Your task to perform on an android device: What's the weather? Image 0: 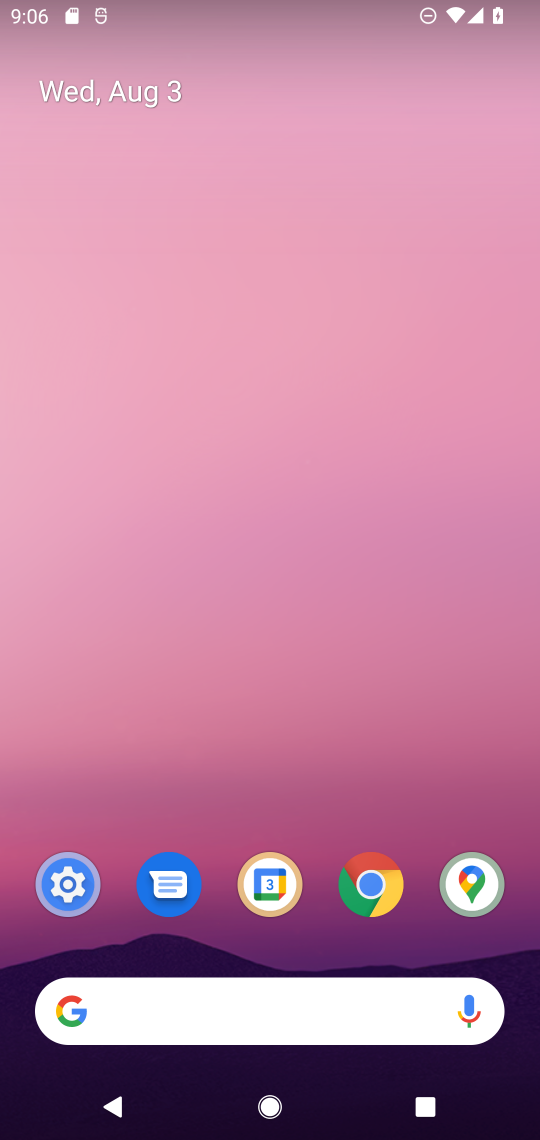
Step 0: click (160, 1007)
Your task to perform on an android device: What's the weather? Image 1: 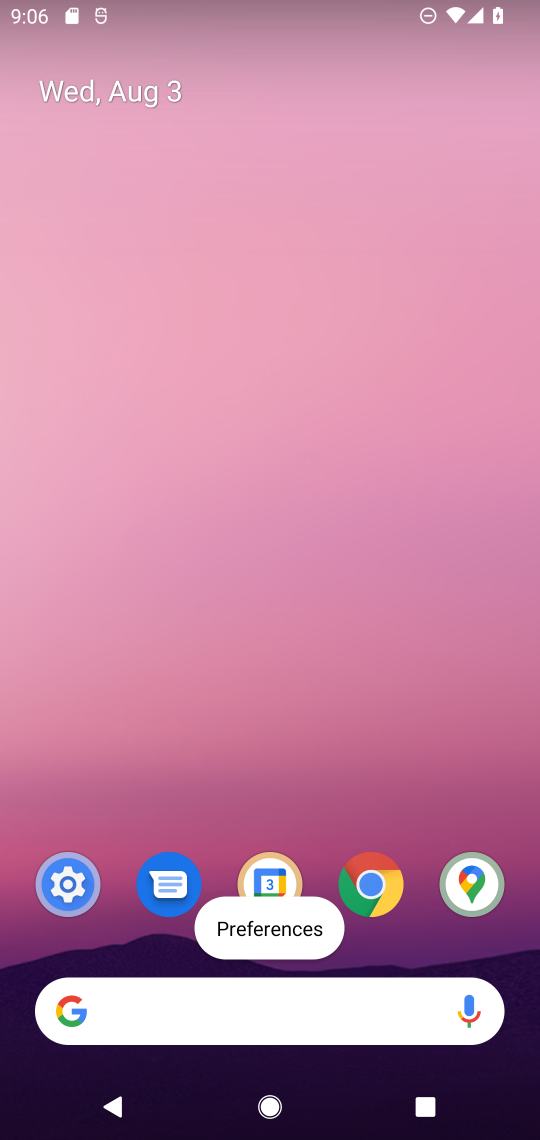
Step 1: click (208, 1018)
Your task to perform on an android device: What's the weather? Image 2: 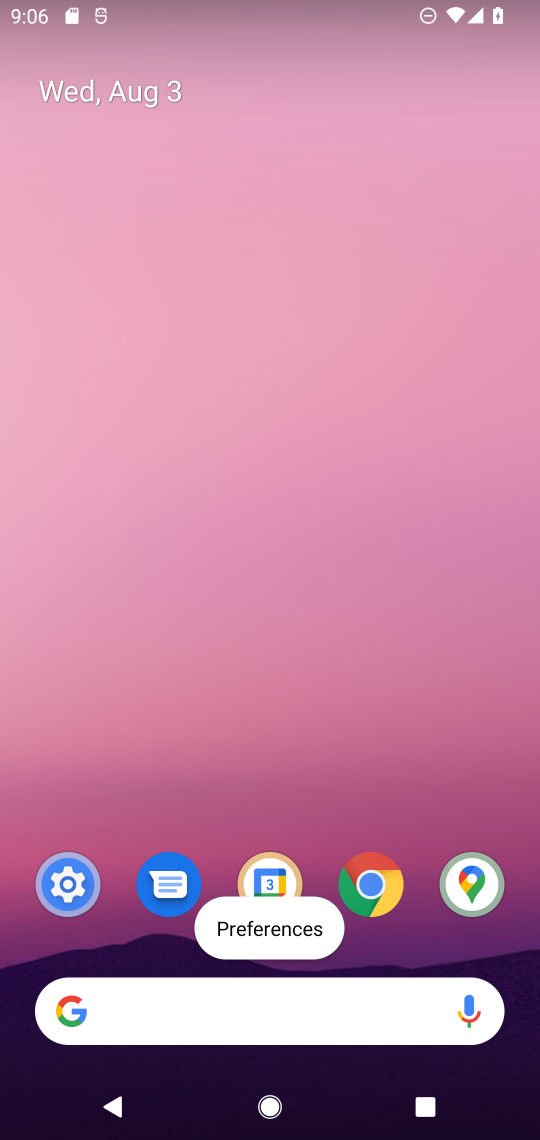
Step 2: click (176, 1017)
Your task to perform on an android device: What's the weather? Image 3: 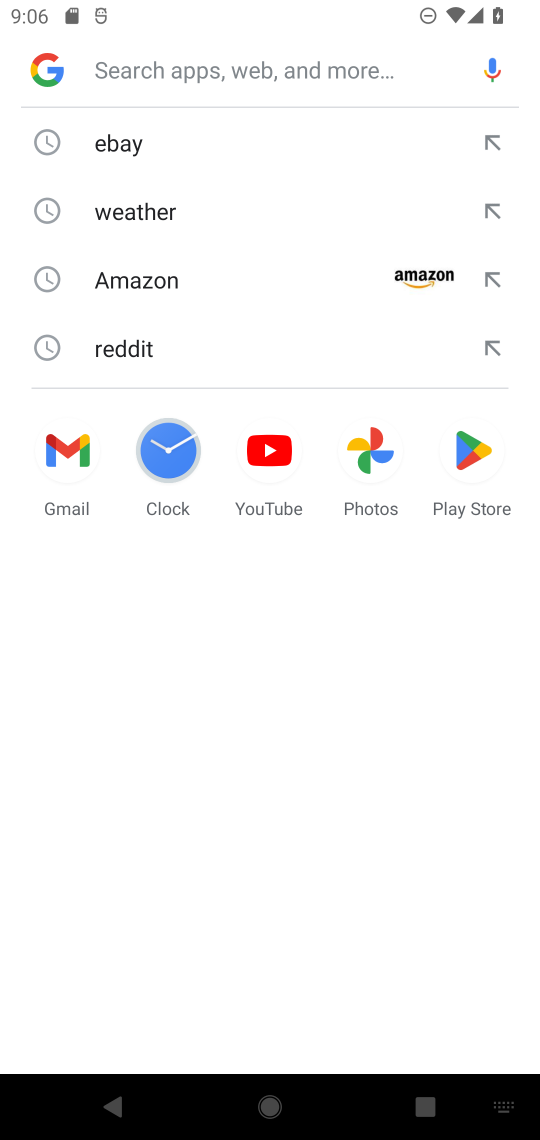
Step 3: type "What's the weather?"
Your task to perform on an android device: What's the weather? Image 4: 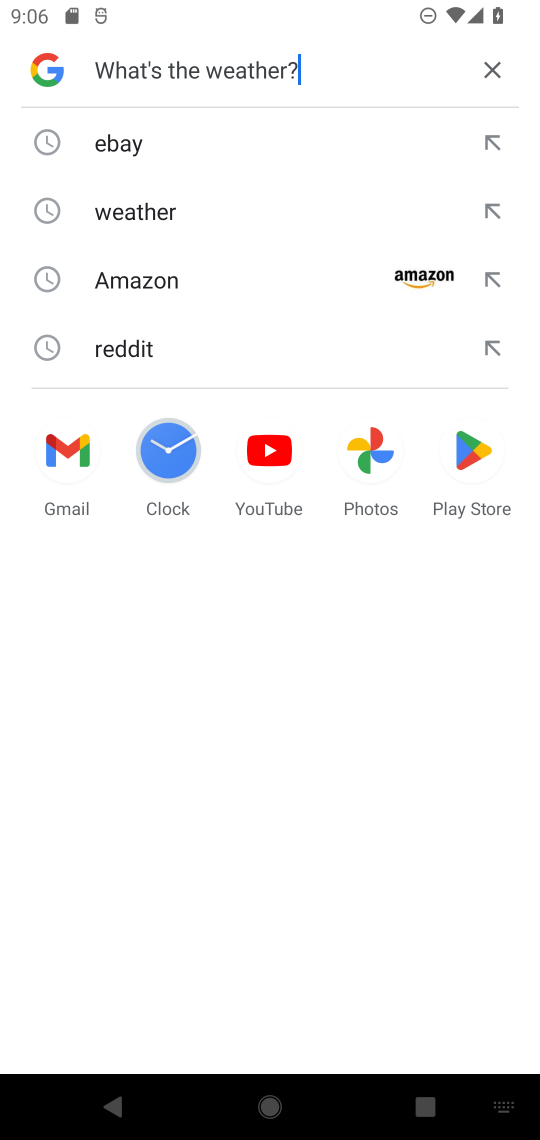
Step 4: type ""
Your task to perform on an android device: What's the weather? Image 5: 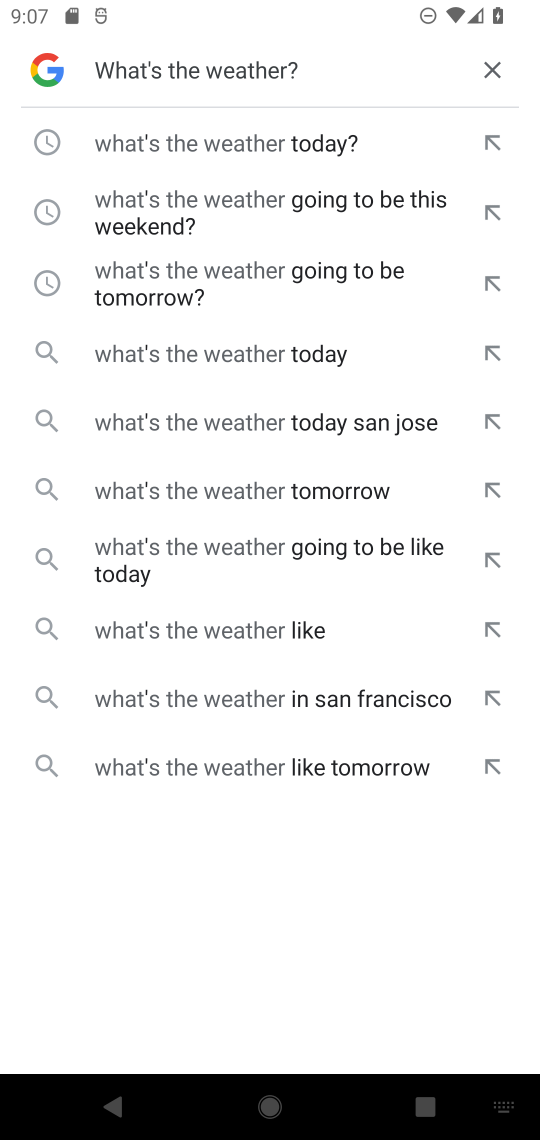
Step 5: type ""
Your task to perform on an android device: What's the weather? Image 6: 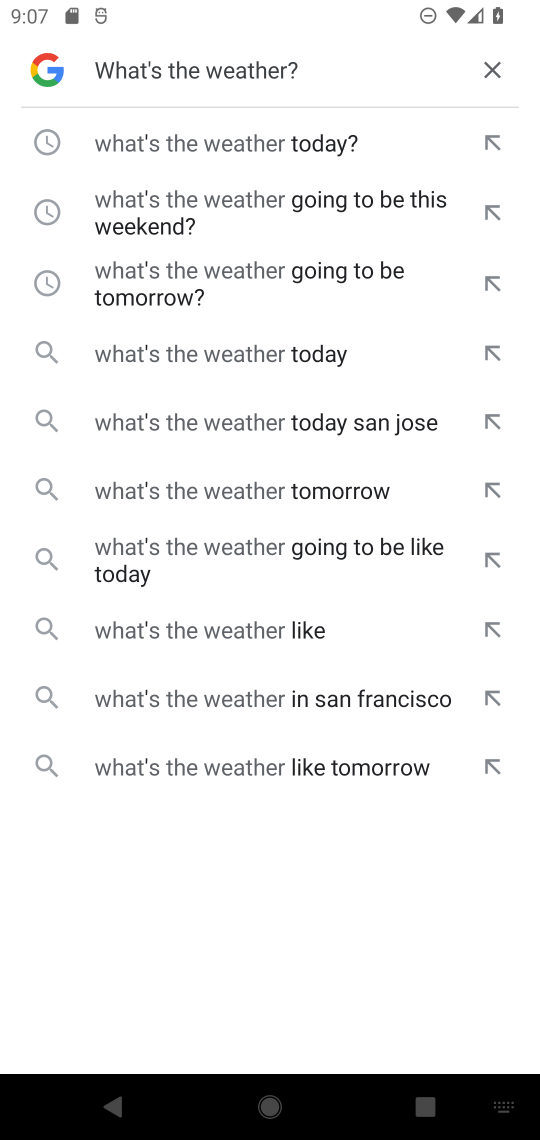
Step 6: type ""
Your task to perform on an android device: What's the weather? Image 7: 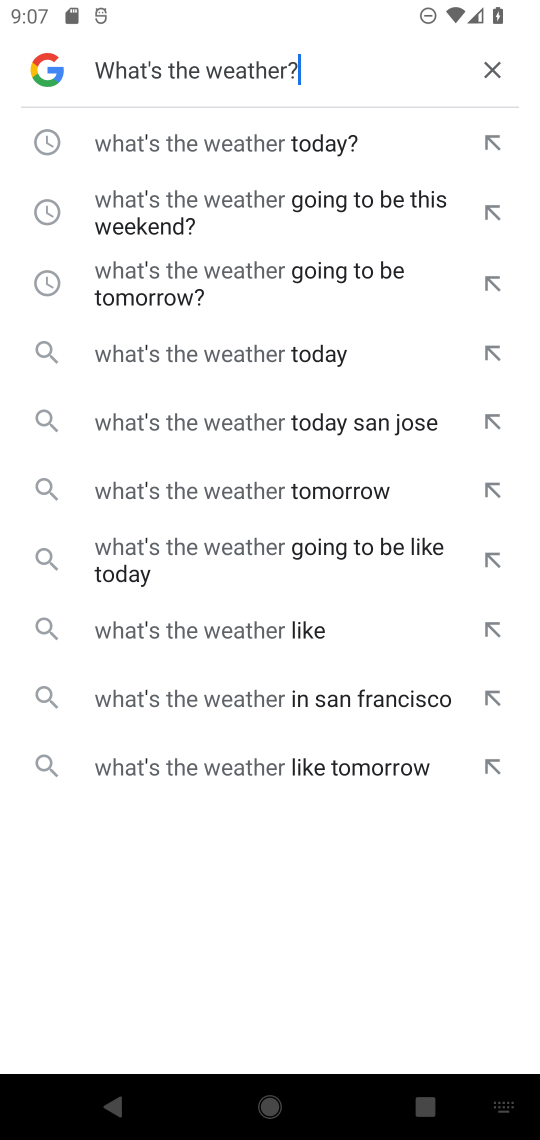
Step 7: task complete